Your task to perform on an android device: toggle airplane mode Image 0: 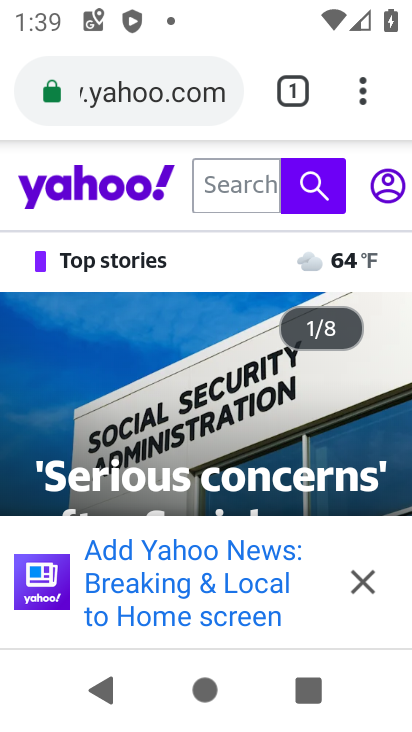
Step 0: press home button
Your task to perform on an android device: toggle airplane mode Image 1: 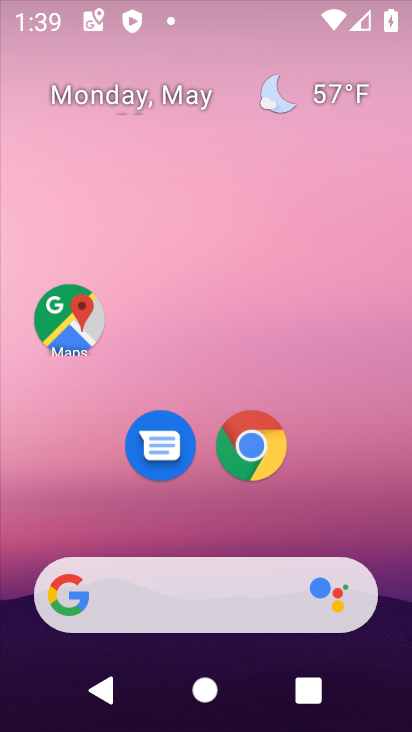
Step 1: drag from (232, 511) to (309, 17)
Your task to perform on an android device: toggle airplane mode Image 2: 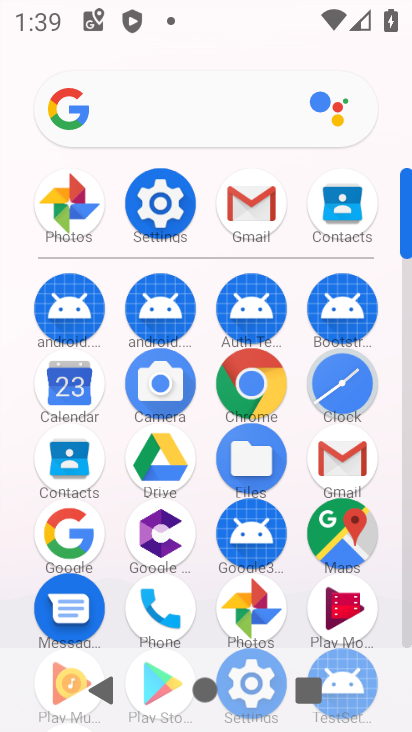
Step 2: click (171, 204)
Your task to perform on an android device: toggle airplane mode Image 3: 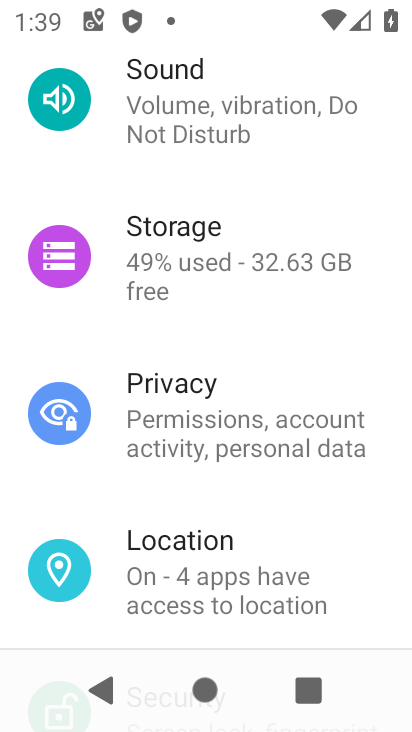
Step 3: drag from (195, 113) to (287, 556)
Your task to perform on an android device: toggle airplane mode Image 4: 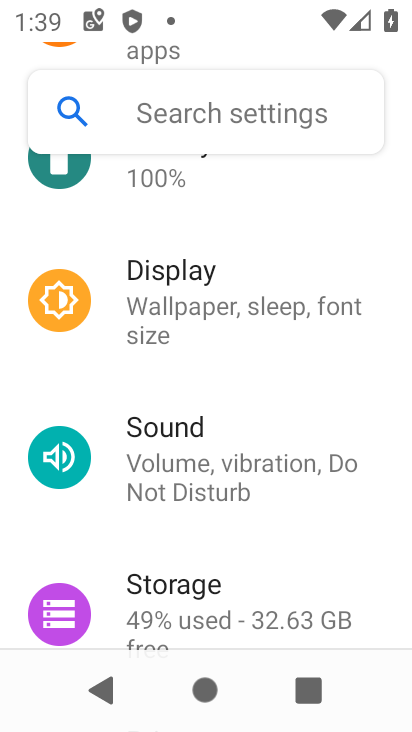
Step 4: drag from (183, 205) to (354, 625)
Your task to perform on an android device: toggle airplane mode Image 5: 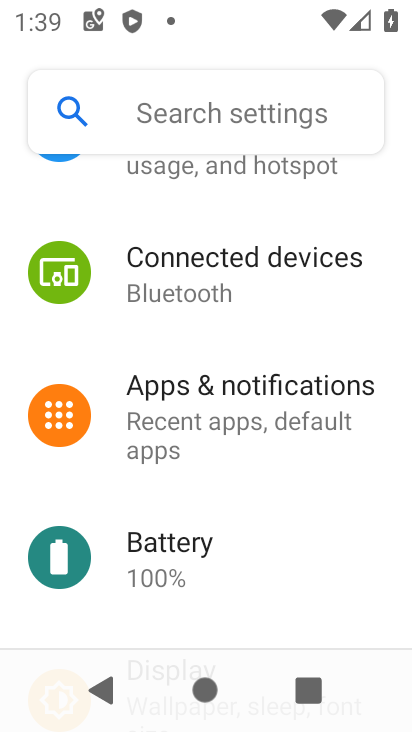
Step 5: drag from (196, 200) to (317, 604)
Your task to perform on an android device: toggle airplane mode Image 6: 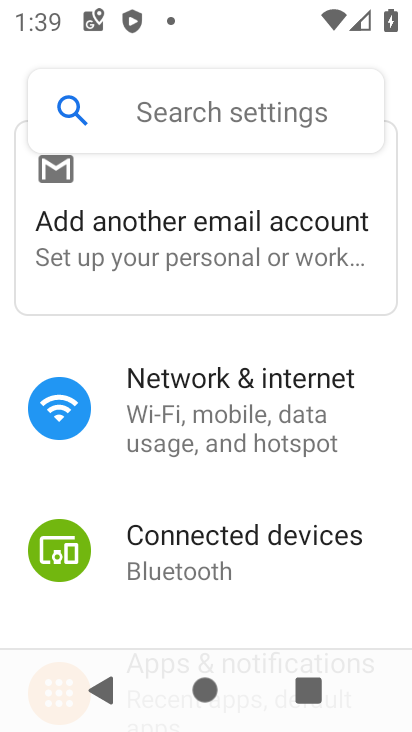
Step 6: click (215, 386)
Your task to perform on an android device: toggle airplane mode Image 7: 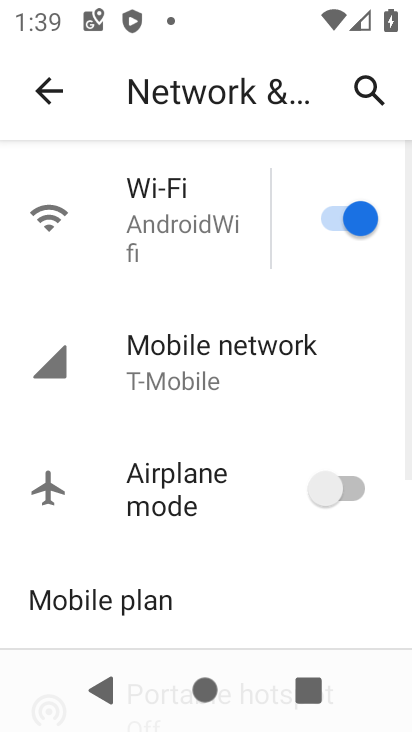
Step 7: click (342, 474)
Your task to perform on an android device: toggle airplane mode Image 8: 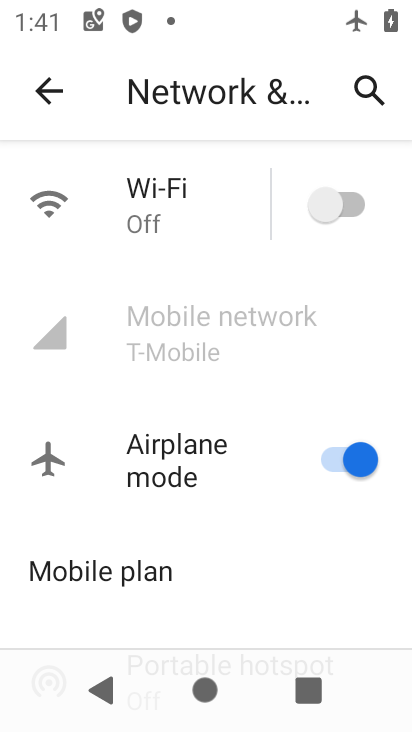
Step 8: task complete